Your task to perform on an android device: toggle airplane mode Image 0: 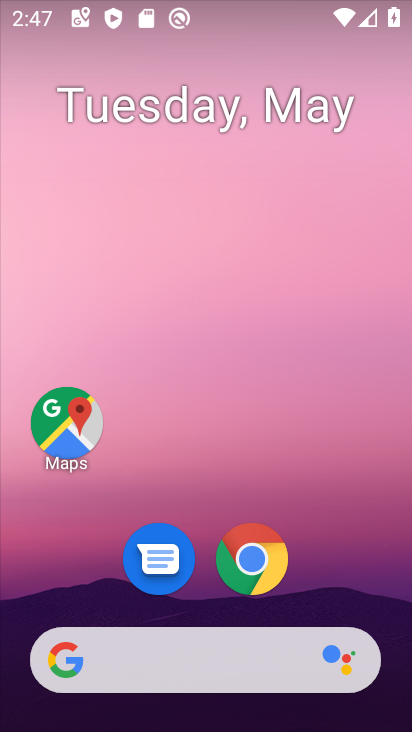
Step 0: drag from (139, 657) to (306, 26)
Your task to perform on an android device: toggle airplane mode Image 1: 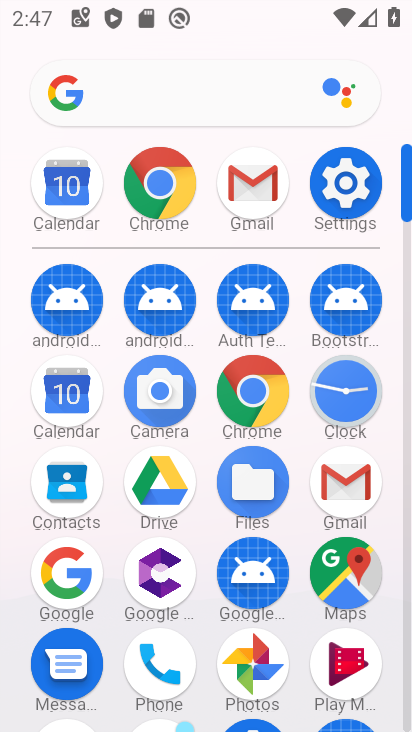
Step 1: click (346, 192)
Your task to perform on an android device: toggle airplane mode Image 2: 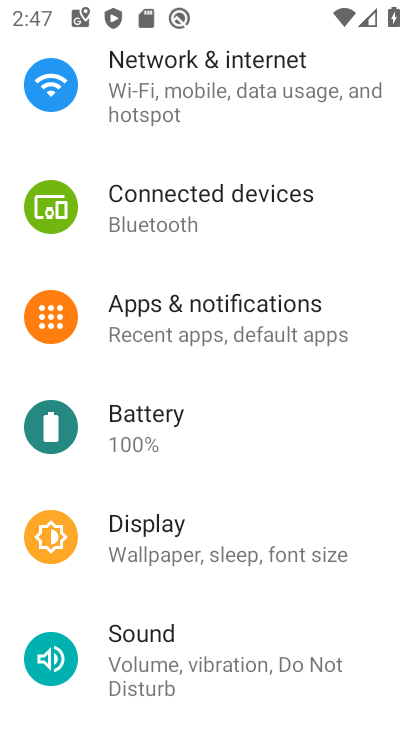
Step 2: click (238, 67)
Your task to perform on an android device: toggle airplane mode Image 3: 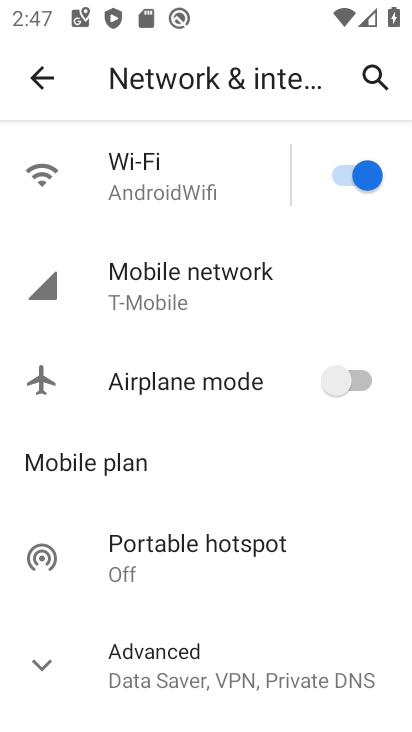
Step 3: click (362, 383)
Your task to perform on an android device: toggle airplane mode Image 4: 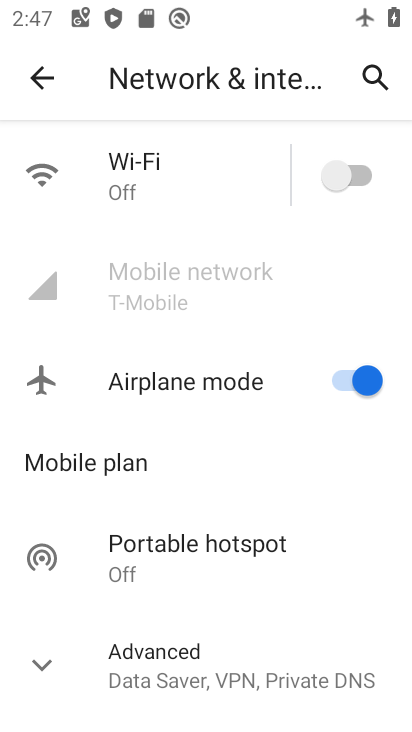
Step 4: task complete